Your task to perform on an android device: change keyboard looks Image 0: 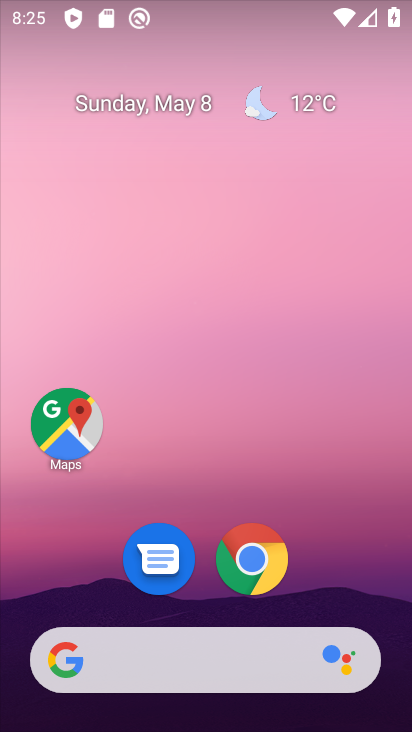
Step 0: drag from (204, 600) to (243, 115)
Your task to perform on an android device: change keyboard looks Image 1: 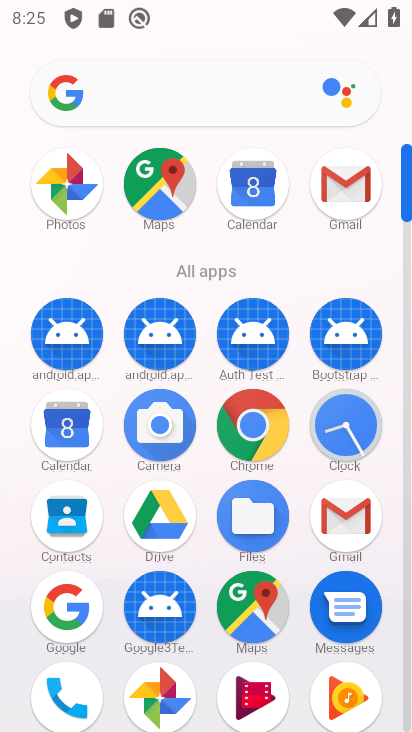
Step 1: drag from (202, 583) to (255, 131)
Your task to perform on an android device: change keyboard looks Image 2: 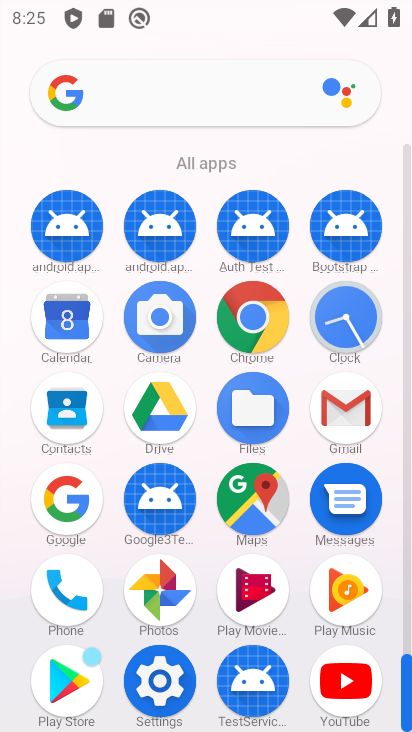
Step 2: click (163, 660)
Your task to perform on an android device: change keyboard looks Image 3: 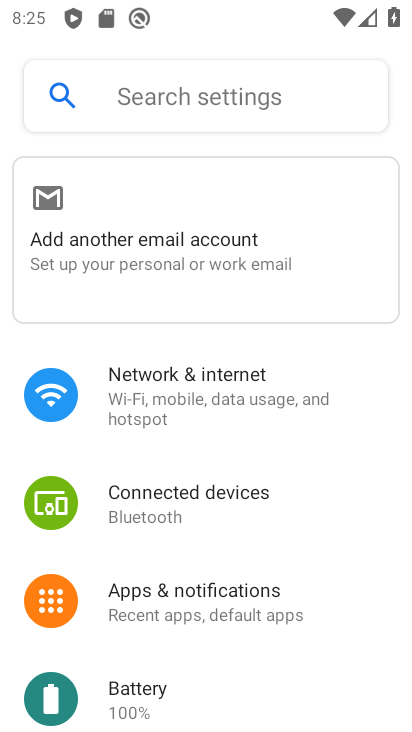
Step 3: drag from (246, 589) to (246, 20)
Your task to perform on an android device: change keyboard looks Image 4: 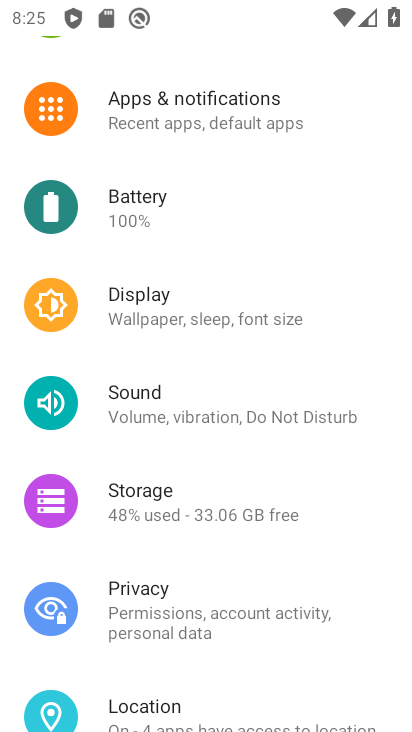
Step 4: drag from (258, 633) to (279, 107)
Your task to perform on an android device: change keyboard looks Image 5: 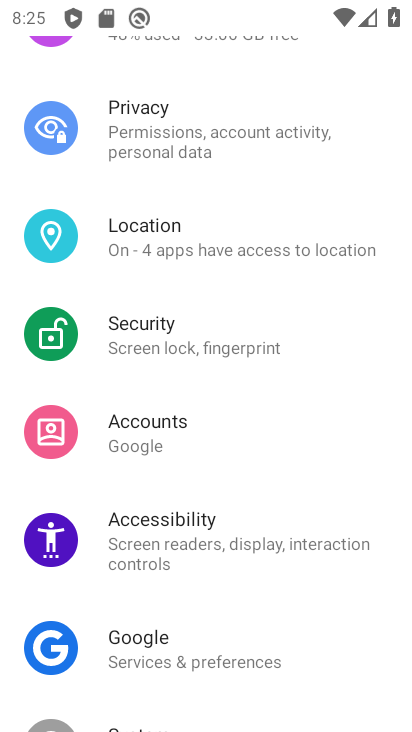
Step 5: drag from (234, 607) to (259, 193)
Your task to perform on an android device: change keyboard looks Image 6: 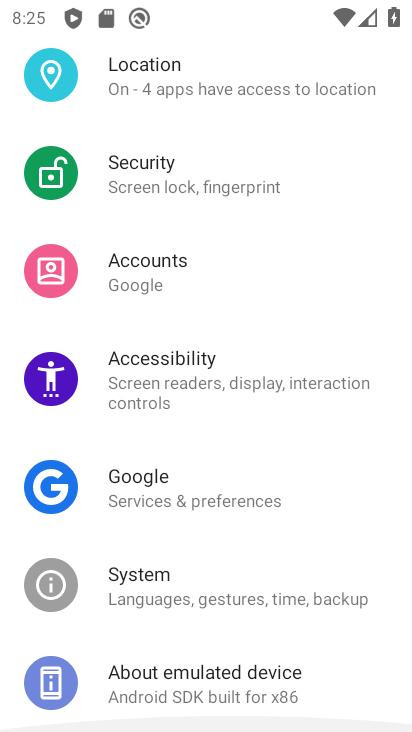
Step 6: click (156, 567)
Your task to perform on an android device: change keyboard looks Image 7: 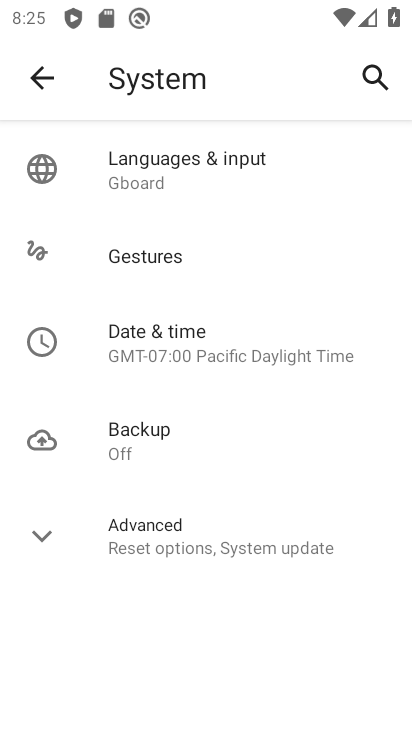
Step 7: click (154, 169)
Your task to perform on an android device: change keyboard looks Image 8: 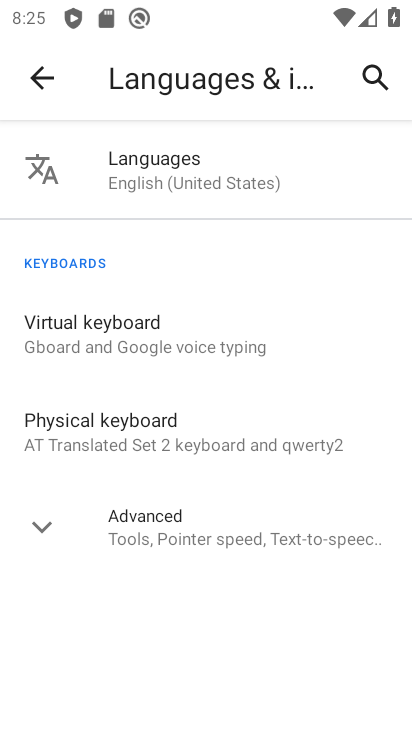
Step 8: drag from (171, 163) to (146, 215)
Your task to perform on an android device: change keyboard looks Image 9: 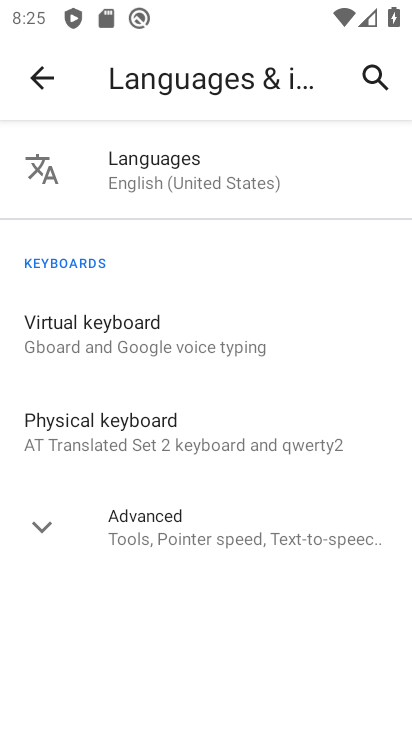
Step 9: click (78, 330)
Your task to perform on an android device: change keyboard looks Image 10: 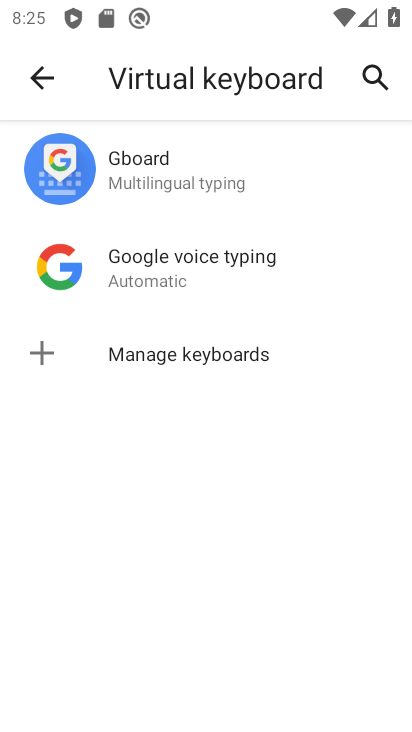
Step 10: click (135, 168)
Your task to perform on an android device: change keyboard looks Image 11: 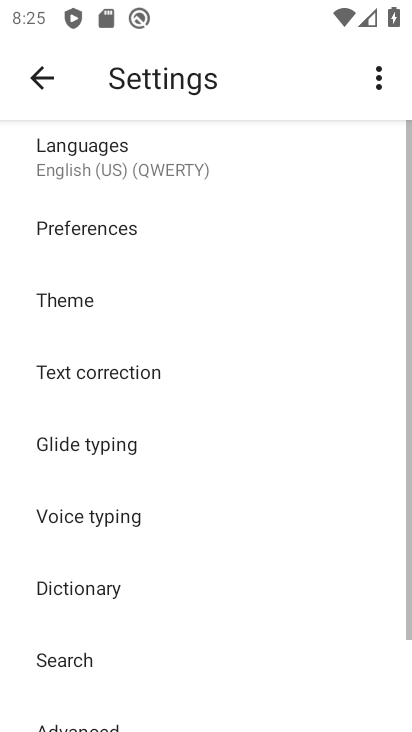
Step 11: click (100, 304)
Your task to perform on an android device: change keyboard looks Image 12: 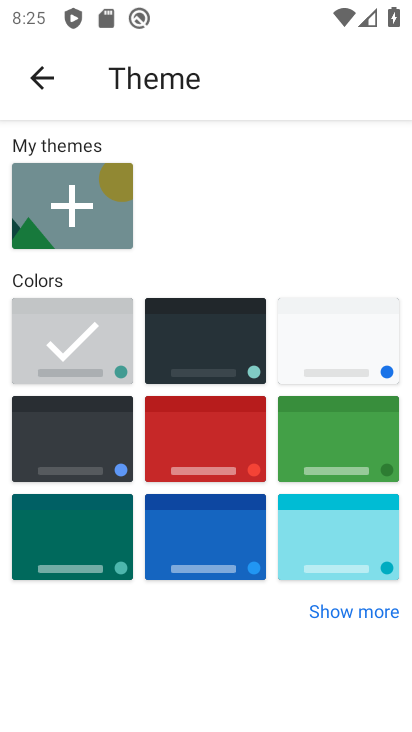
Step 12: click (191, 349)
Your task to perform on an android device: change keyboard looks Image 13: 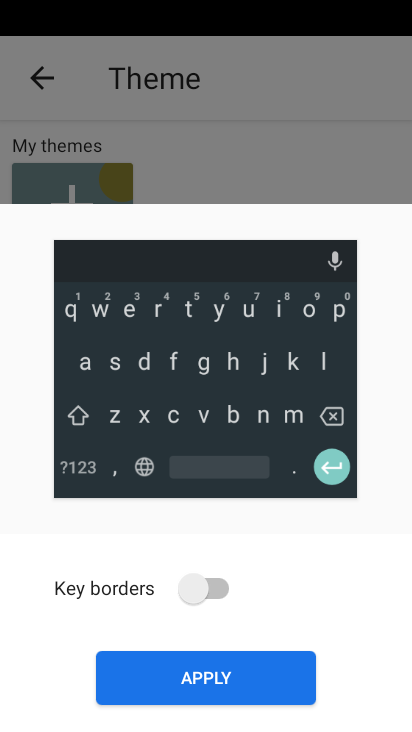
Step 13: click (207, 684)
Your task to perform on an android device: change keyboard looks Image 14: 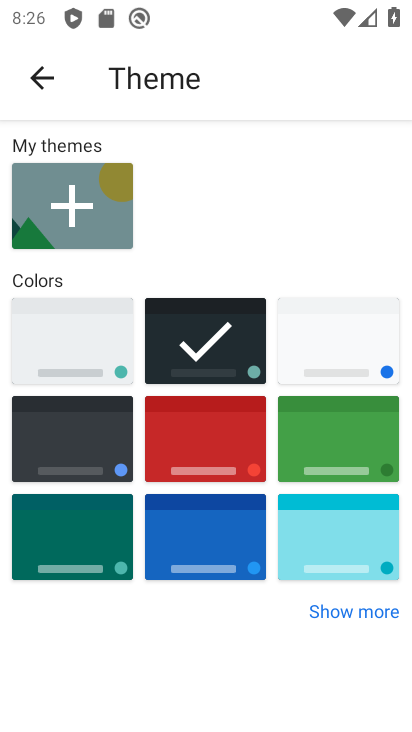
Step 14: task complete